Your task to perform on an android device: What is the news today? Image 0: 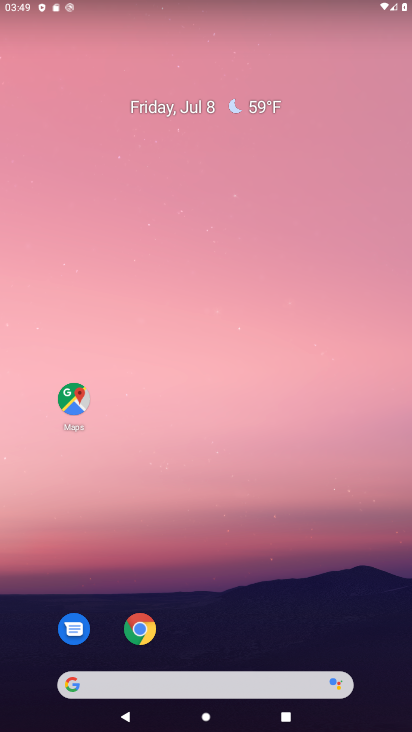
Step 0: press home button
Your task to perform on an android device: What is the news today? Image 1: 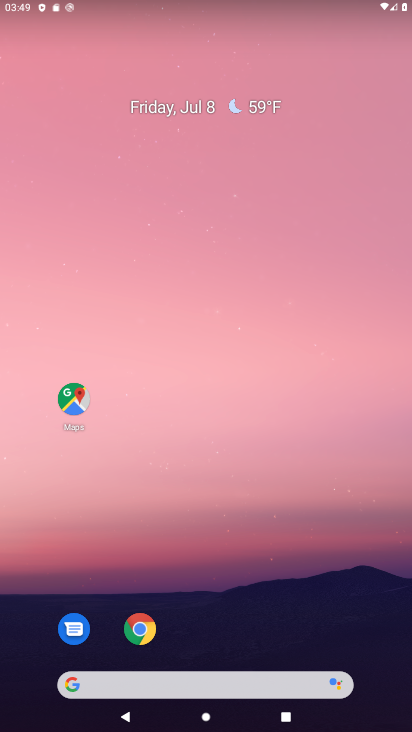
Step 1: task complete